Your task to perform on an android device: Open Chrome and go to settings Image 0: 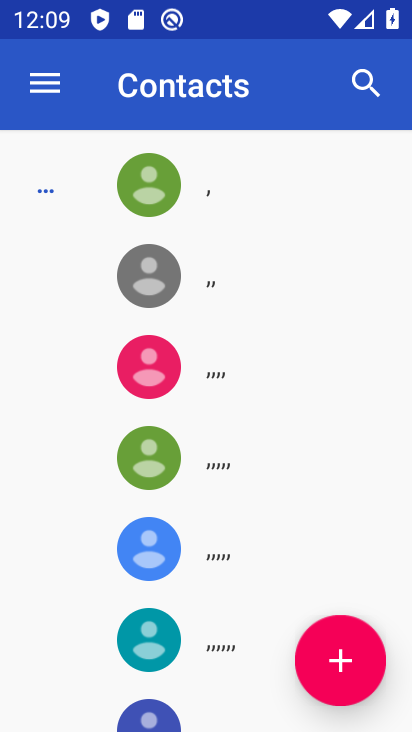
Step 0: press home button
Your task to perform on an android device: Open Chrome and go to settings Image 1: 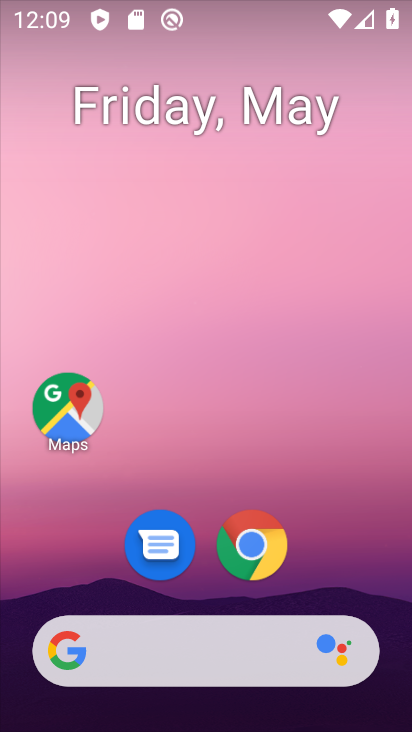
Step 1: click (249, 552)
Your task to perform on an android device: Open Chrome and go to settings Image 2: 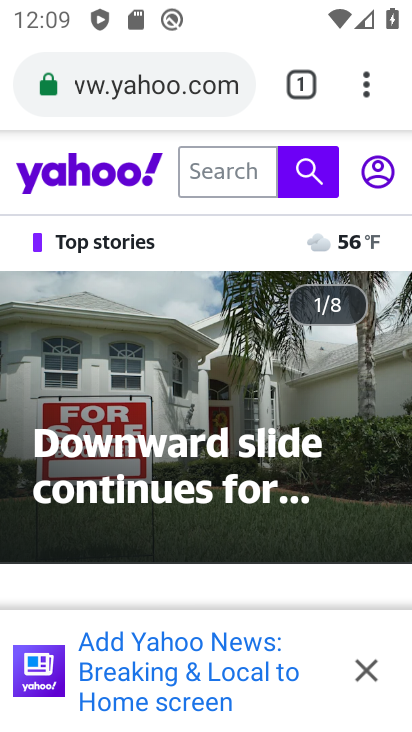
Step 2: click (366, 83)
Your task to perform on an android device: Open Chrome and go to settings Image 3: 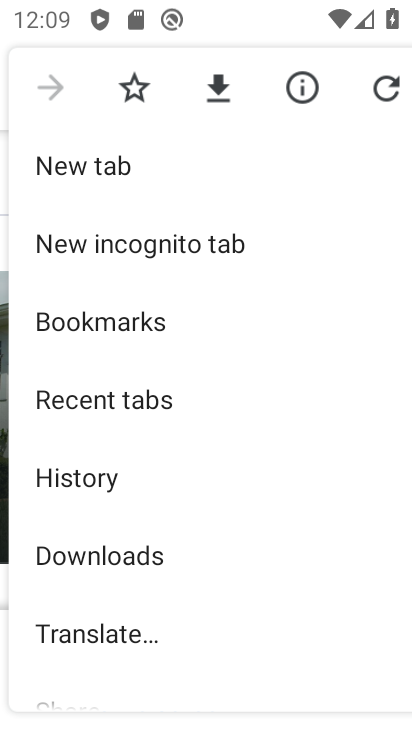
Step 3: drag from (235, 628) to (215, 263)
Your task to perform on an android device: Open Chrome and go to settings Image 4: 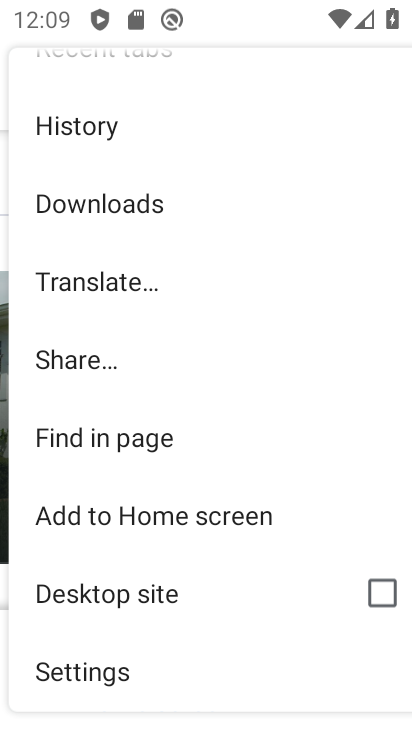
Step 4: click (162, 669)
Your task to perform on an android device: Open Chrome and go to settings Image 5: 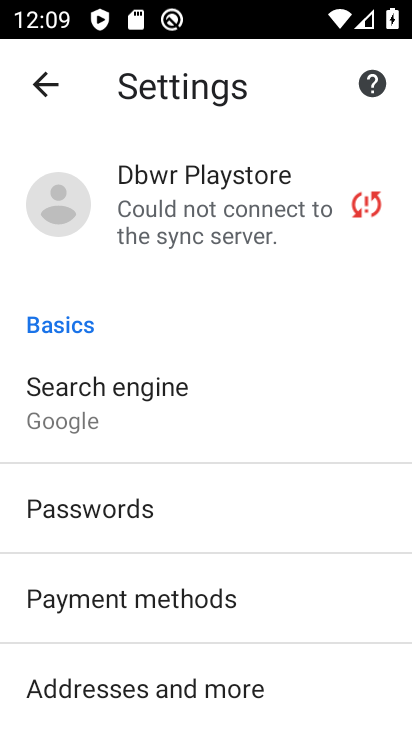
Step 5: task complete